Your task to perform on an android device: move a message to another label in the gmail app Image 0: 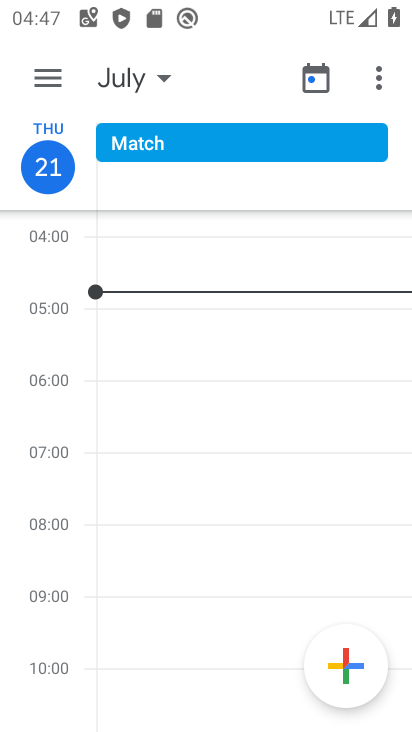
Step 0: press back button
Your task to perform on an android device: move a message to another label in the gmail app Image 1: 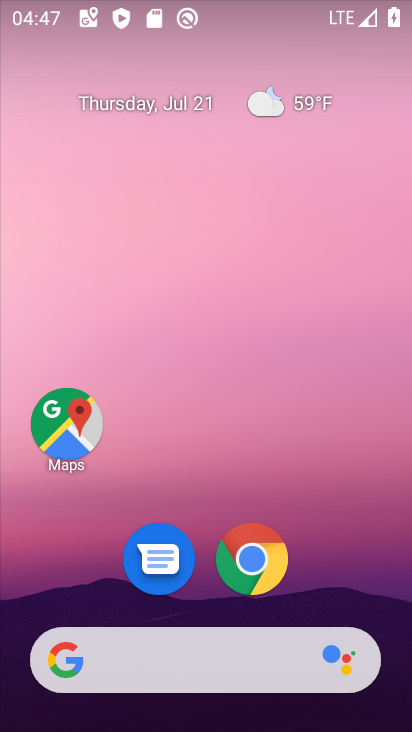
Step 1: drag from (96, 555) to (249, 7)
Your task to perform on an android device: move a message to another label in the gmail app Image 2: 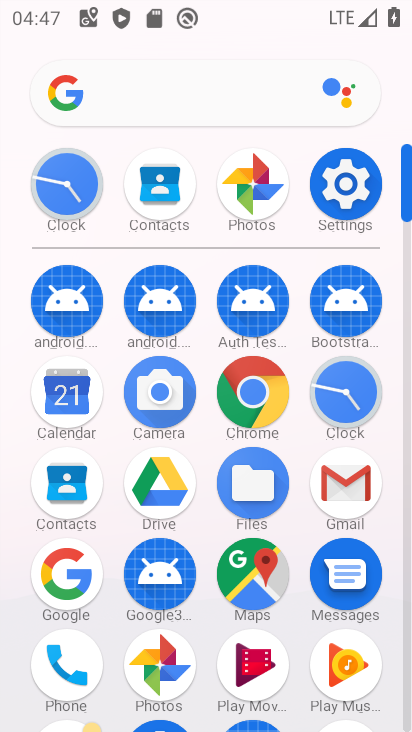
Step 2: click (342, 491)
Your task to perform on an android device: move a message to another label in the gmail app Image 3: 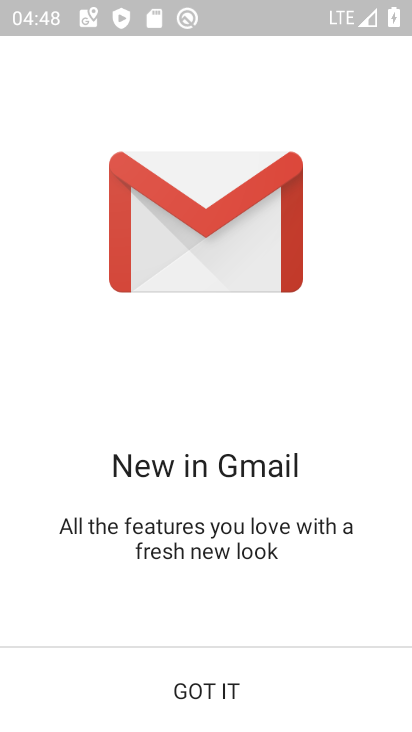
Step 3: click (208, 688)
Your task to perform on an android device: move a message to another label in the gmail app Image 4: 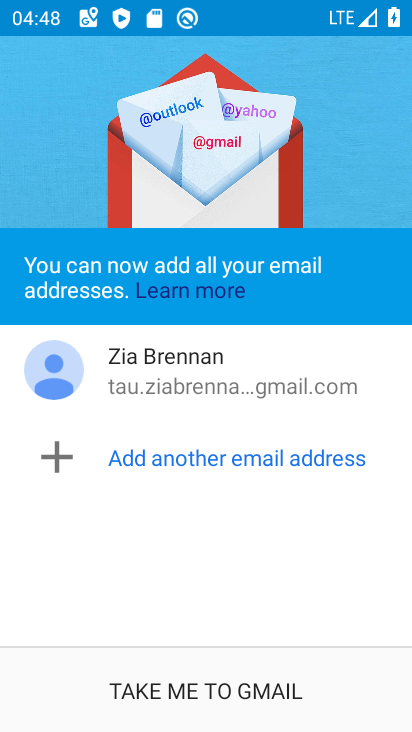
Step 4: click (155, 679)
Your task to perform on an android device: move a message to another label in the gmail app Image 5: 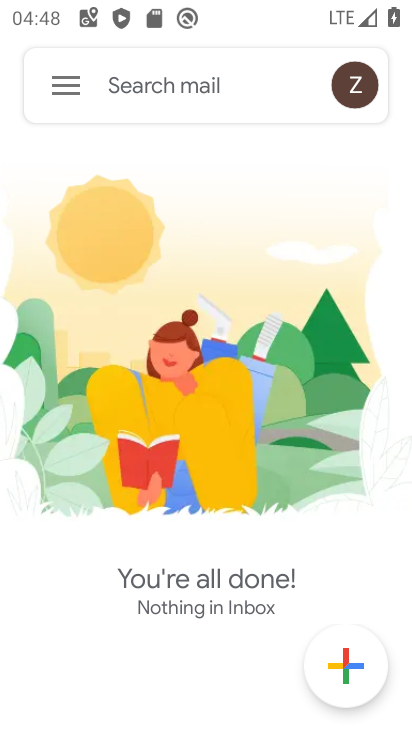
Step 5: click (58, 81)
Your task to perform on an android device: move a message to another label in the gmail app Image 6: 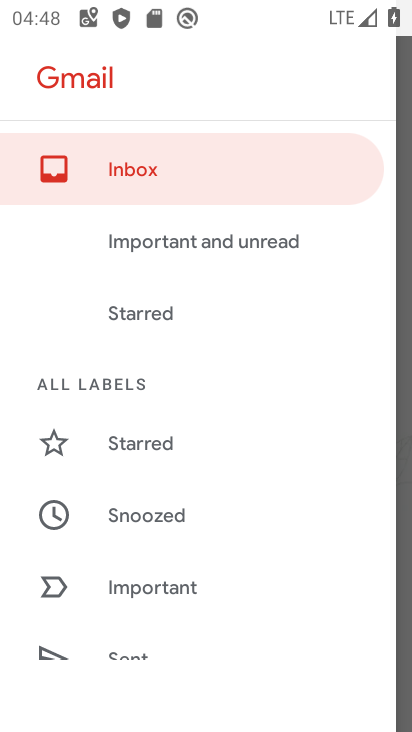
Step 6: drag from (185, 632) to (255, 160)
Your task to perform on an android device: move a message to another label in the gmail app Image 7: 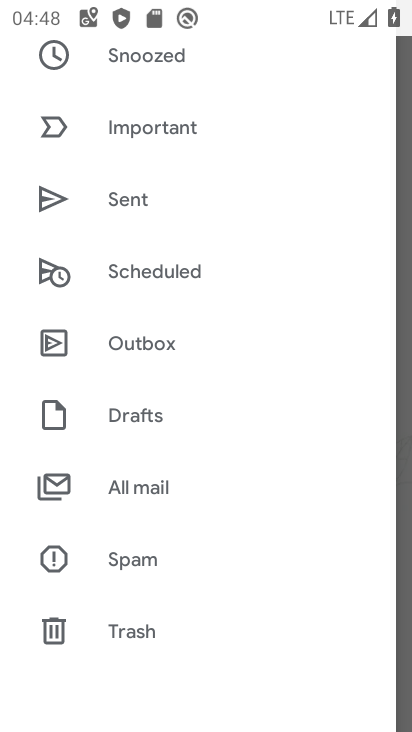
Step 7: click (122, 484)
Your task to perform on an android device: move a message to another label in the gmail app Image 8: 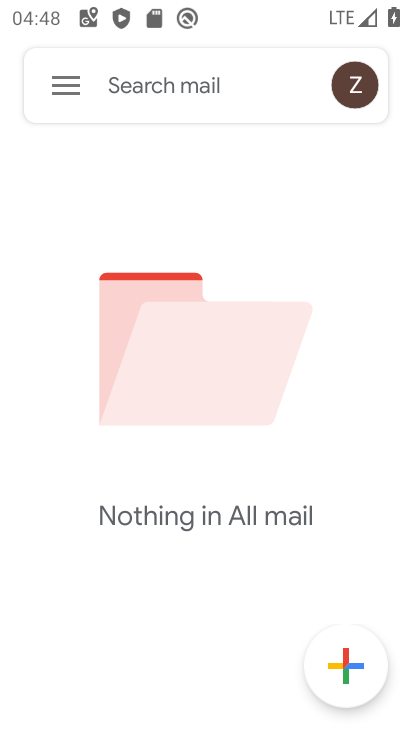
Step 8: task complete